Your task to perform on an android device: create a new album in the google photos Image 0: 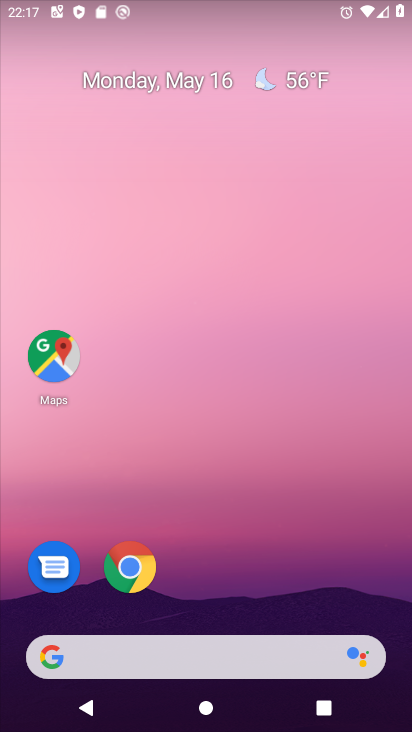
Step 0: drag from (216, 495) to (255, 182)
Your task to perform on an android device: create a new album in the google photos Image 1: 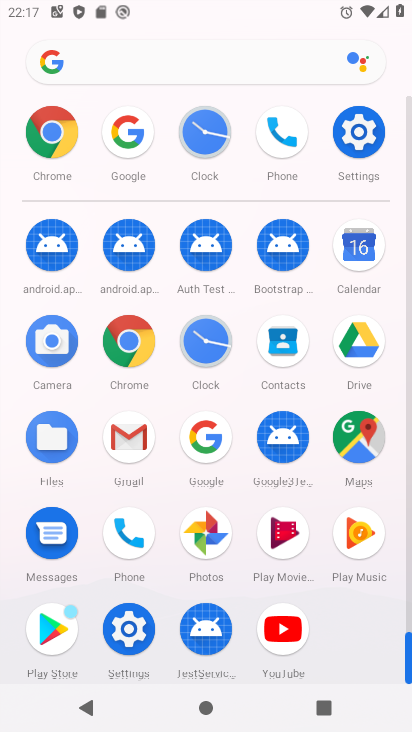
Step 1: click (197, 539)
Your task to perform on an android device: create a new album in the google photos Image 2: 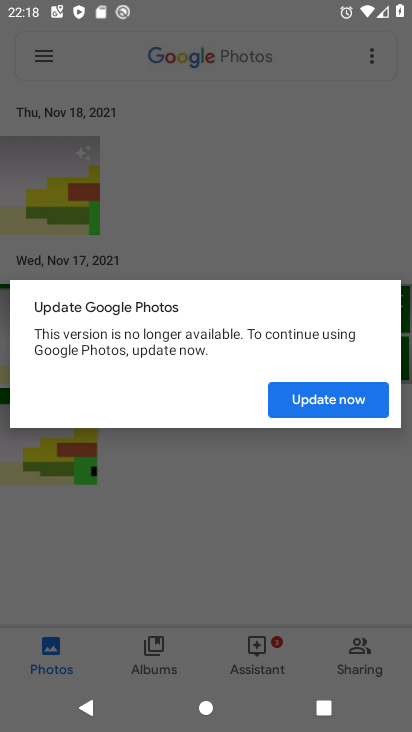
Step 2: click (332, 390)
Your task to perform on an android device: create a new album in the google photos Image 3: 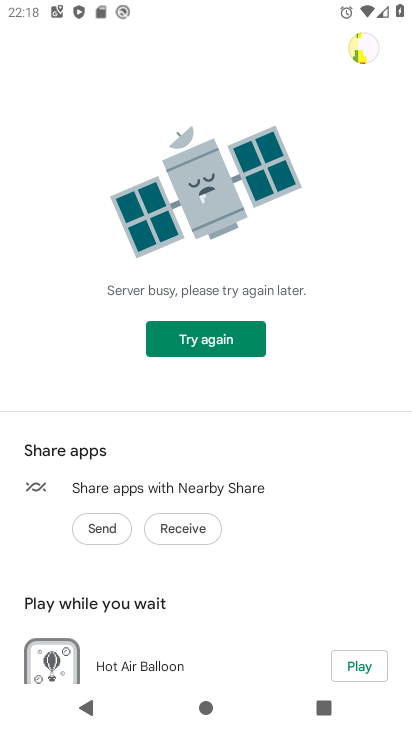
Step 3: press back button
Your task to perform on an android device: create a new album in the google photos Image 4: 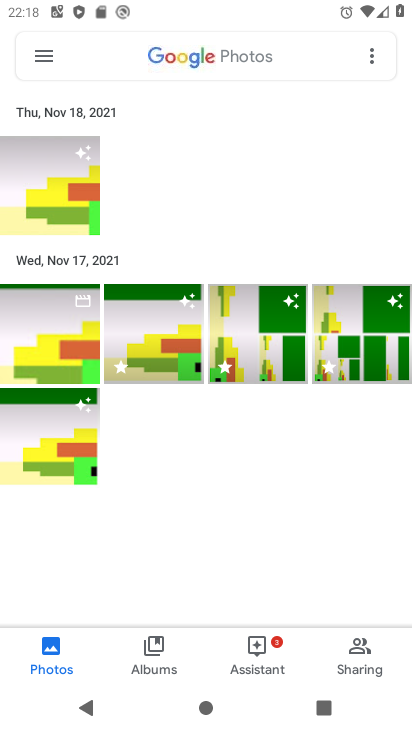
Step 4: click (35, 196)
Your task to perform on an android device: create a new album in the google photos Image 5: 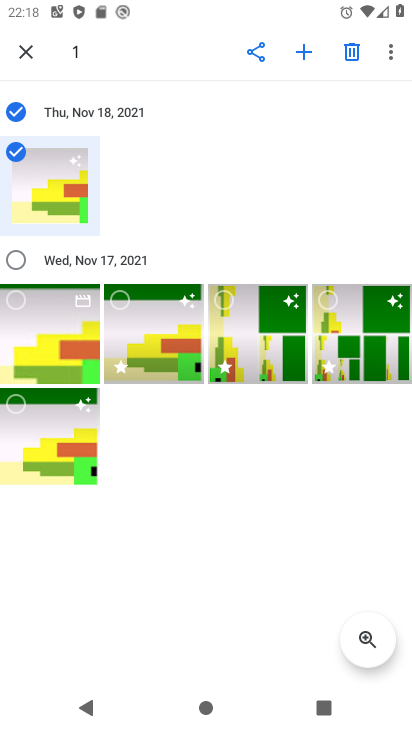
Step 5: click (306, 37)
Your task to perform on an android device: create a new album in the google photos Image 6: 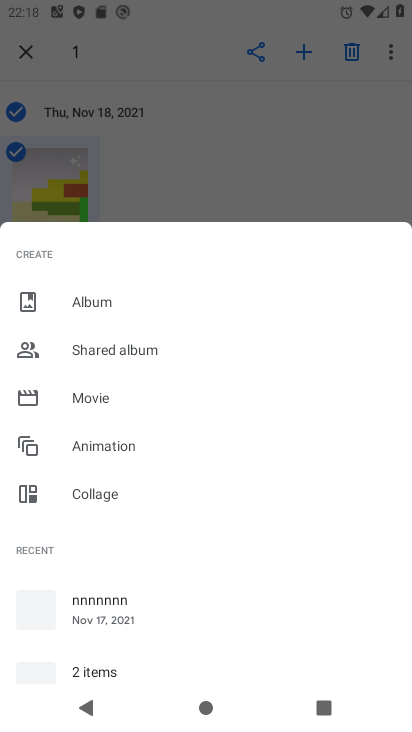
Step 6: click (90, 296)
Your task to perform on an android device: create a new album in the google photos Image 7: 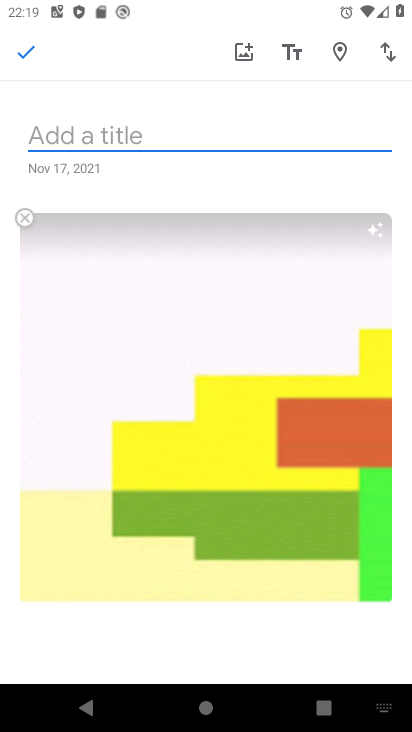
Step 7: click (126, 120)
Your task to perform on an android device: create a new album in the google photos Image 8: 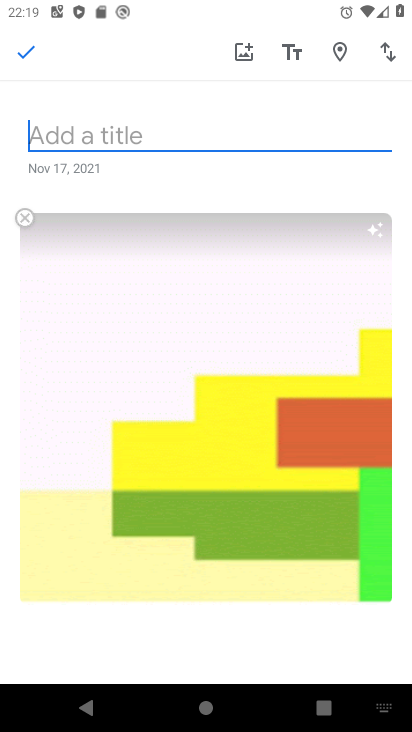
Step 8: type "ddddddddddf"
Your task to perform on an android device: create a new album in the google photos Image 9: 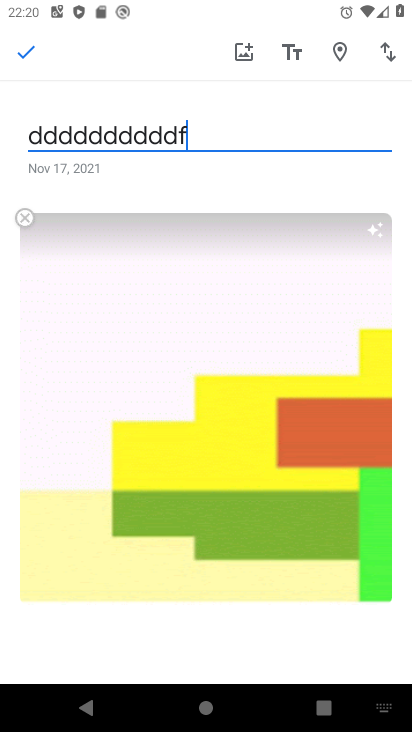
Step 9: click (31, 45)
Your task to perform on an android device: create a new album in the google photos Image 10: 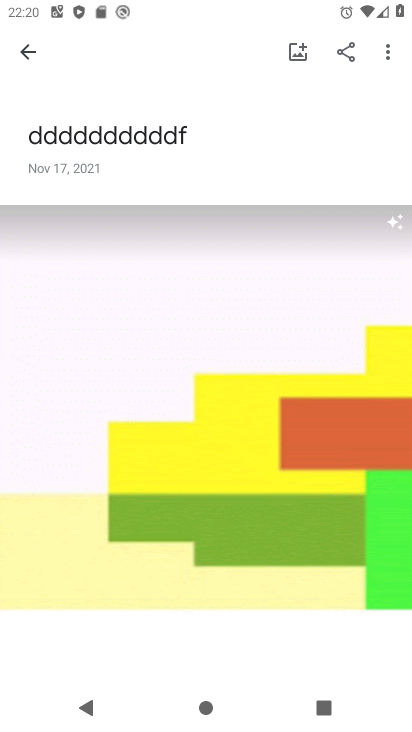
Step 10: task complete